Your task to perform on an android device: Open privacy settings Image 0: 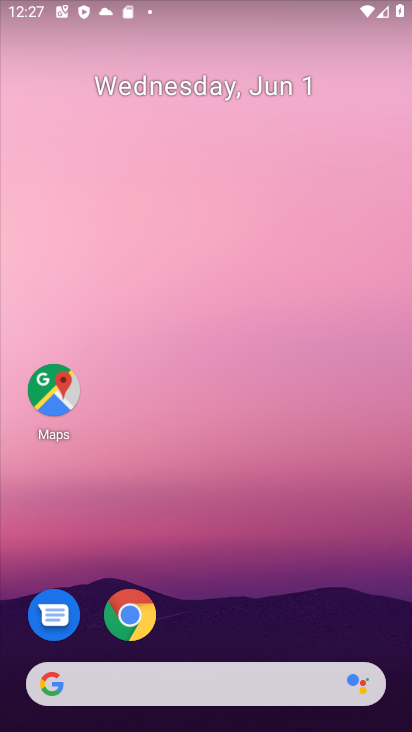
Step 0: task complete